Your task to perform on an android device: Open Wikipedia Image 0: 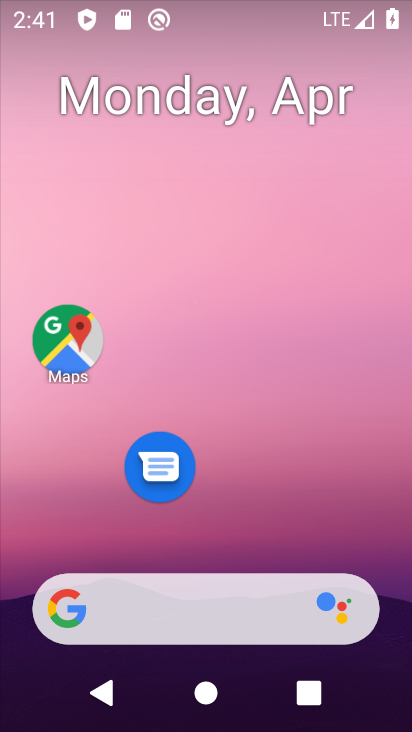
Step 0: drag from (306, 545) to (375, 74)
Your task to perform on an android device: Open Wikipedia Image 1: 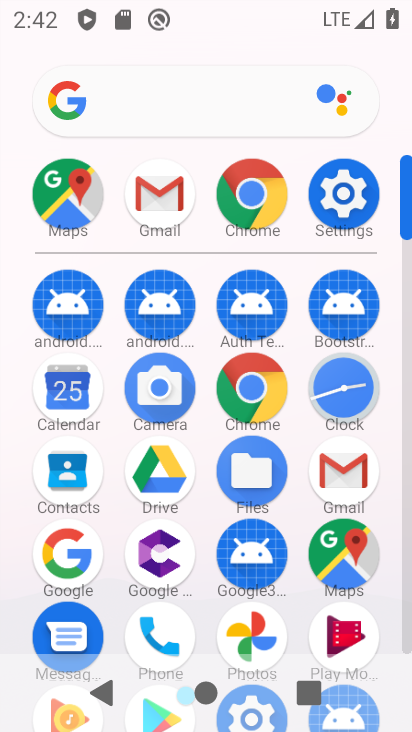
Step 1: click (183, 99)
Your task to perform on an android device: Open Wikipedia Image 2: 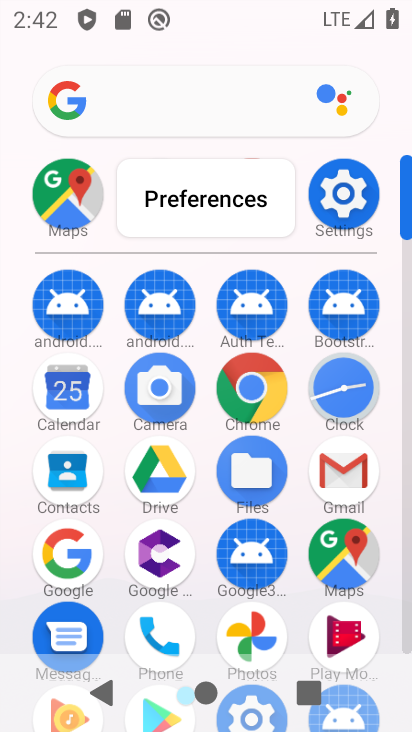
Step 2: click (146, 116)
Your task to perform on an android device: Open Wikipedia Image 3: 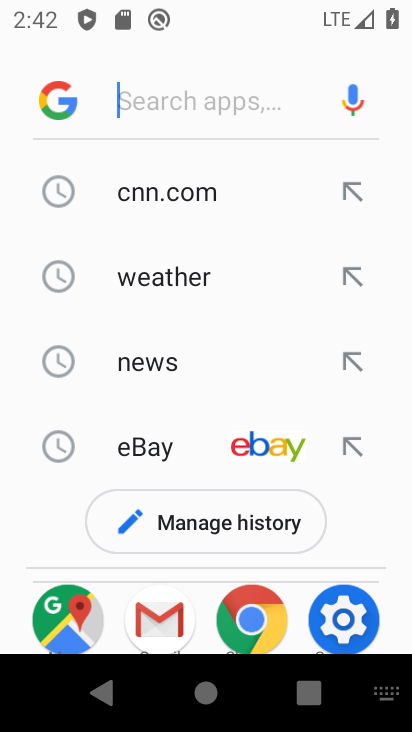
Step 3: type "wikipedia"
Your task to perform on an android device: Open Wikipedia Image 4: 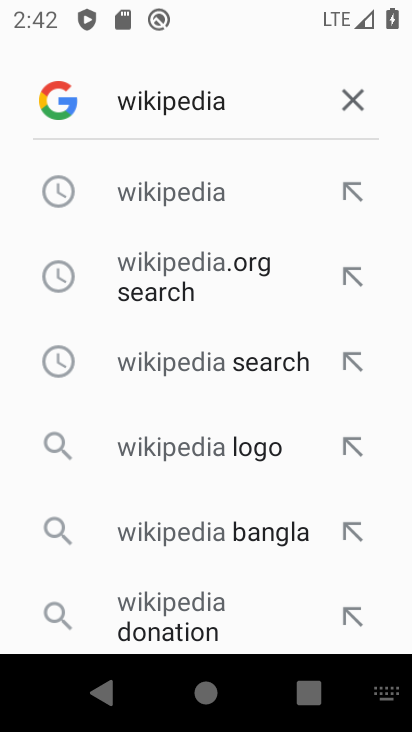
Step 4: click (214, 183)
Your task to perform on an android device: Open Wikipedia Image 5: 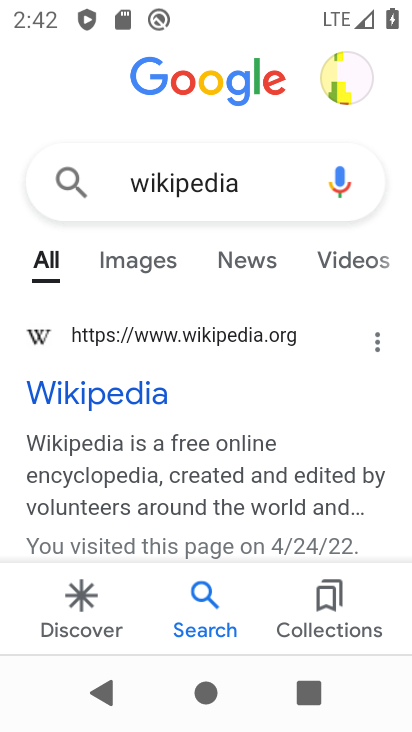
Step 5: click (125, 397)
Your task to perform on an android device: Open Wikipedia Image 6: 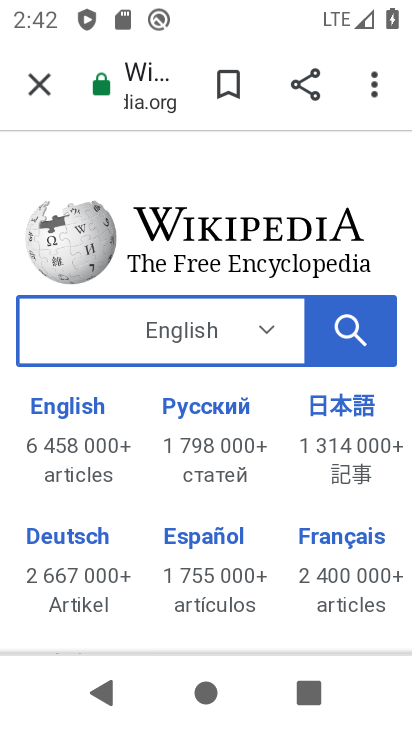
Step 6: task complete